Your task to perform on an android device: Go to location settings Image 0: 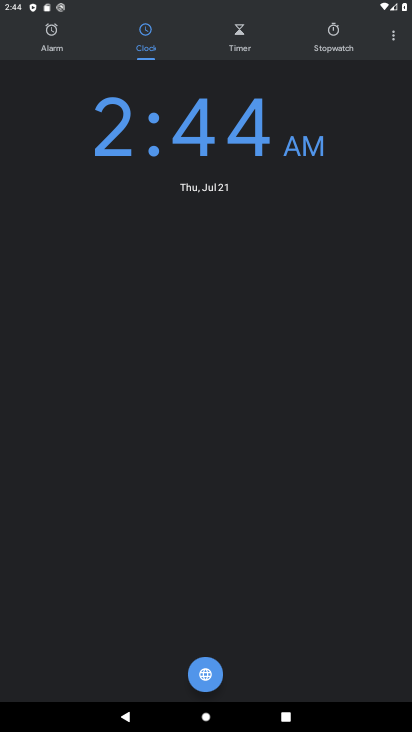
Step 0: press home button
Your task to perform on an android device: Go to location settings Image 1: 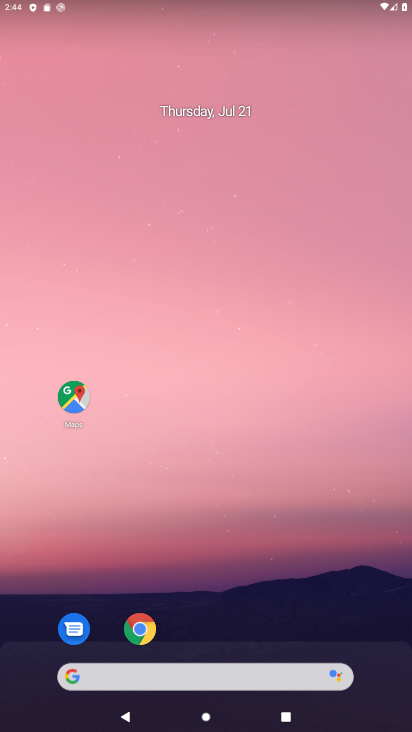
Step 1: drag from (252, 589) to (270, 31)
Your task to perform on an android device: Go to location settings Image 2: 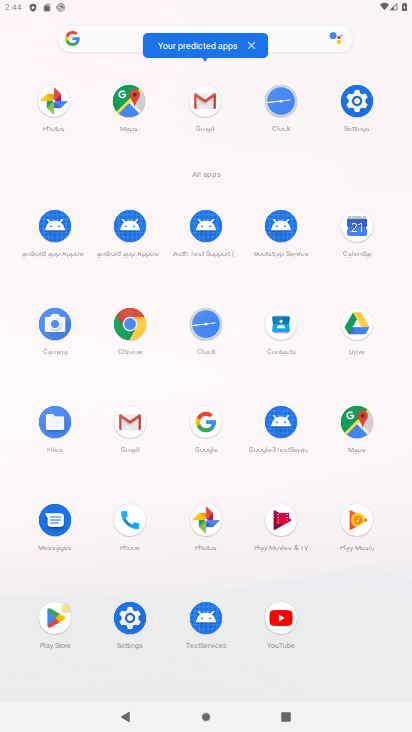
Step 2: click (125, 619)
Your task to perform on an android device: Go to location settings Image 3: 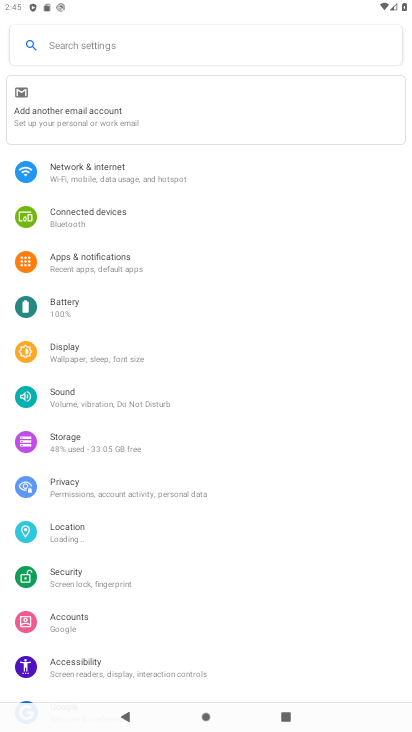
Step 3: click (83, 535)
Your task to perform on an android device: Go to location settings Image 4: 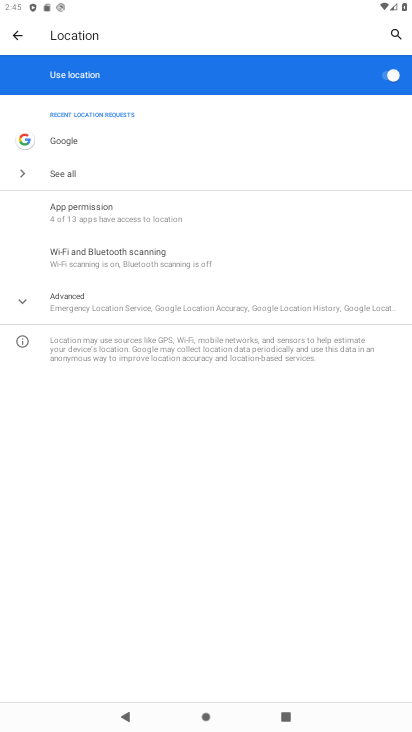
Step 4: click (96, 303)
Your task to perform on an android device: Go to location settings Image 5: 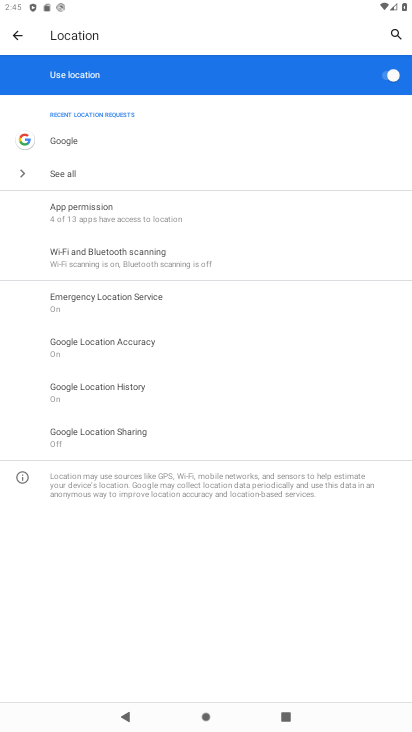
Step 5: task complete